Your task to perform on an android device: turn on wifi Image 0: 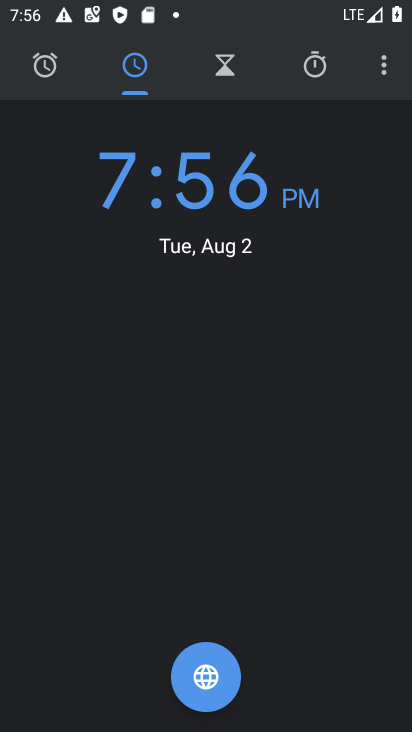
Step 0: press home button
Your task to perform on an android device: turn on wifi Image 1: 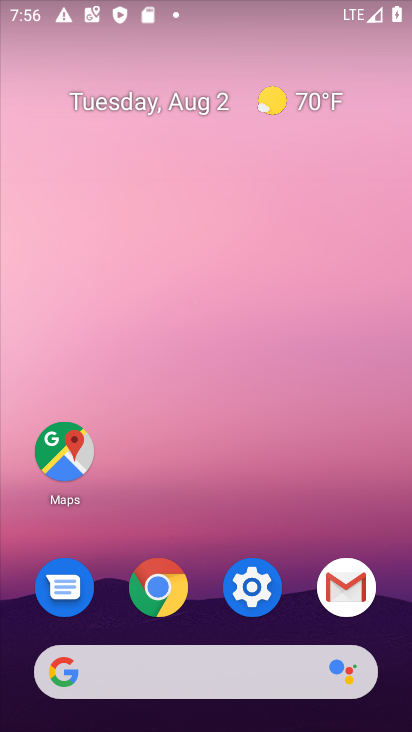
Step 1: click (251, 588)
Your task to perform on an android device: turn on wifi Image 2: 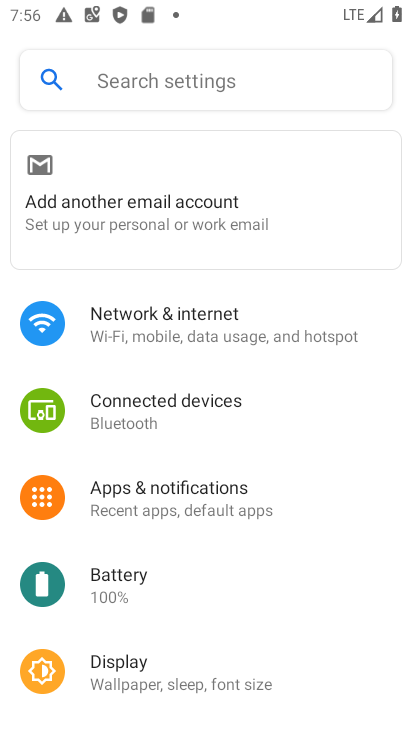
Step 2: click (176, 335)
Your task to perform on an android device: turn on wifi Image 3: 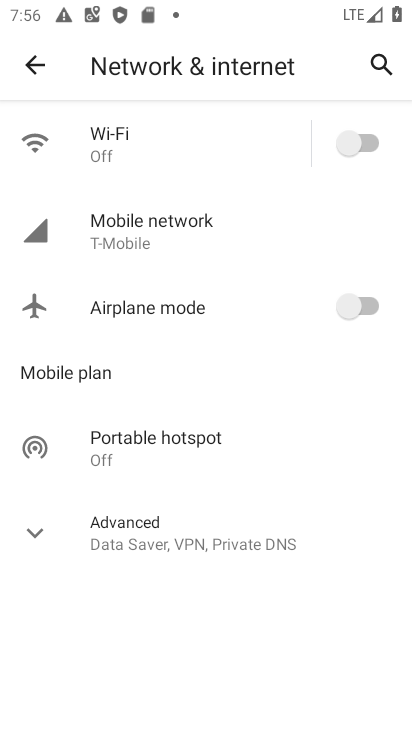
Step 3: click (159, 152)
Your task to perform on an android device: turn on wifi Image 4: 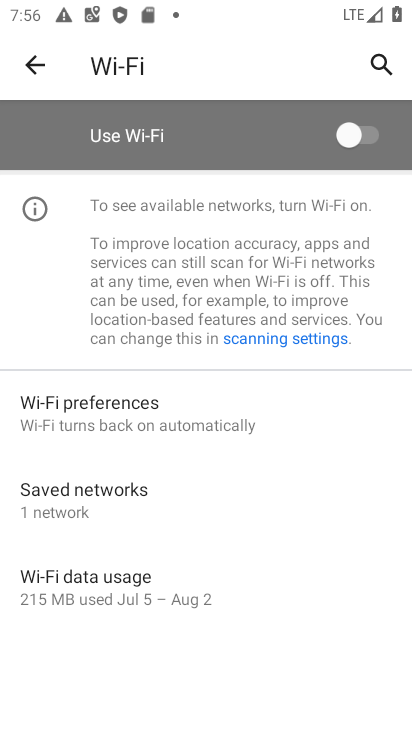
Step 4: click (369, 134)
Your task to perform on an android device: turn on wifi Image 5: 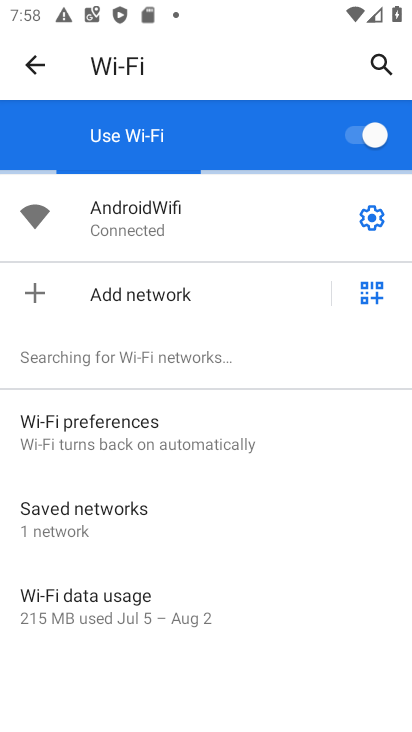
Step 5: task complete